Your task to perform on an android device: Do I have any events this weekend? Image 0: 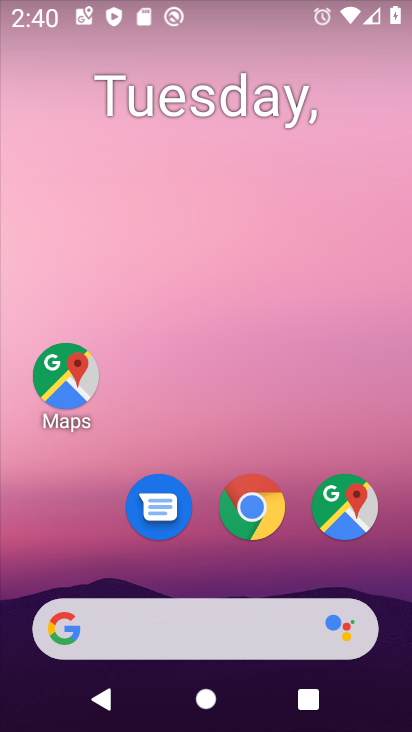
Step 0: drag from (195, 453) to (230, 171)
Your task to perform on an android device: Do I have any events this weekend? Image 1: 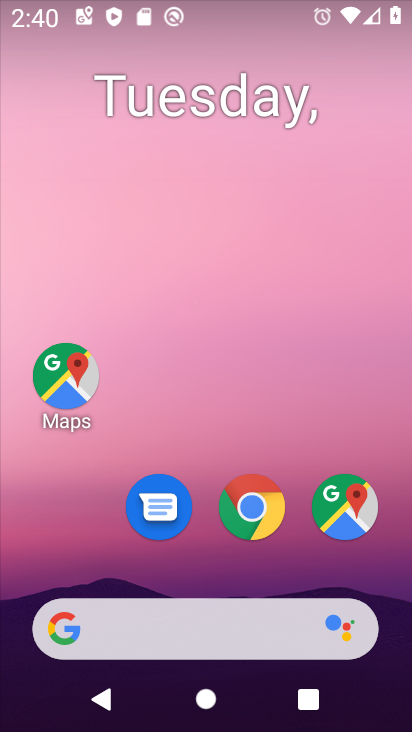
Step 1: drag from (216, 550) to (303, 109)
Your task to perform on an android device: Do I have any events this weekend? Image 2: 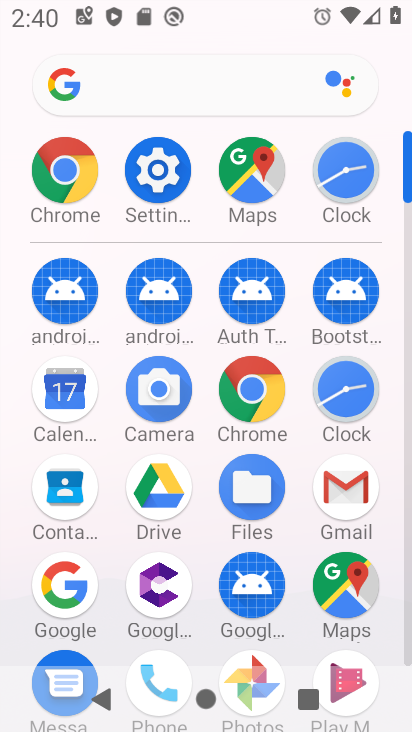
Step 2: click (63, 393)
Your task to perform on an android device: Do I have any events this weekend? Image 3: 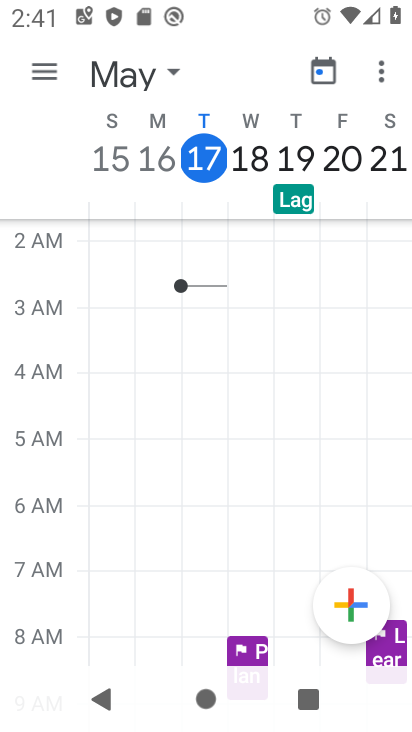
Step 3: task complete